Your task to perform on an android device: Look up the best selling patio furniture on Home Depot Image 0: 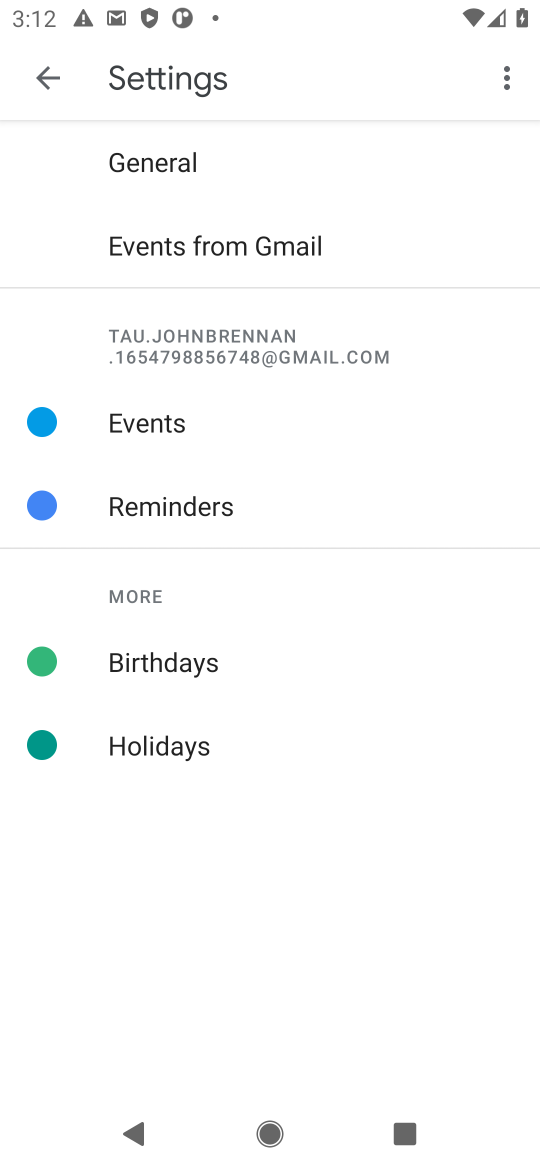
Step 0: press home button
Your task to perform on an android device: Look up the best selling patio furniture on Home Depot Image 1: 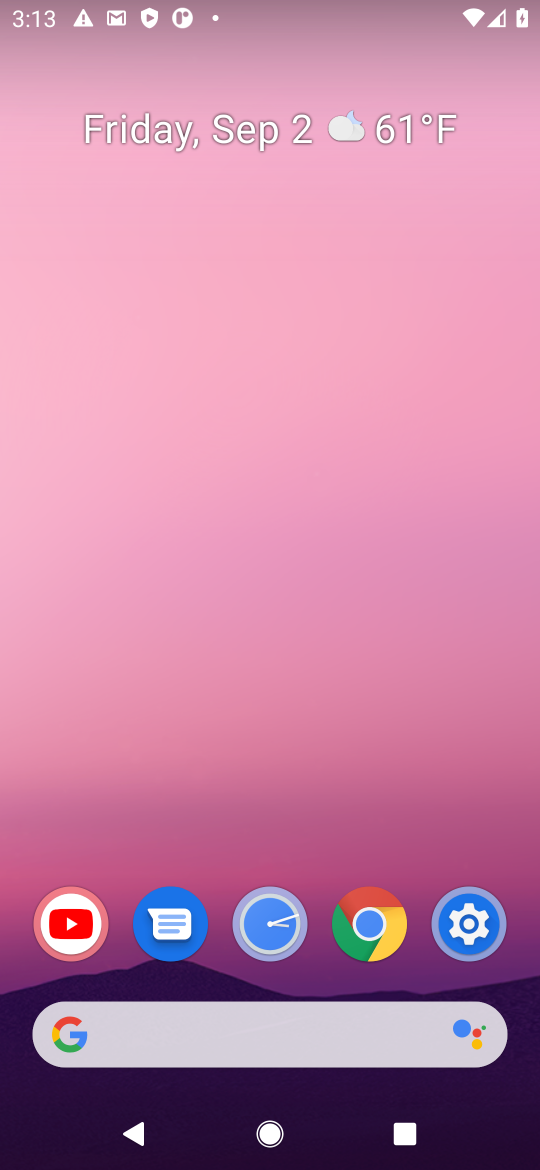
Step 1: click (420, 1024)
Your task to perform on an android device: Look up the best selling patio furniture on Home Depot Image 2: 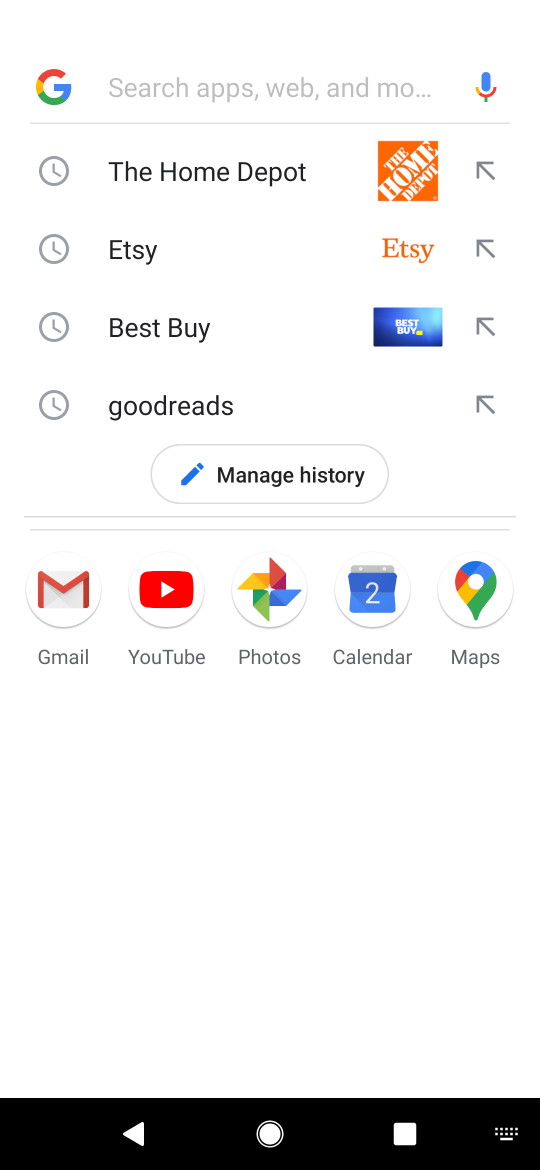
Step 2: press enter
Your task to perform on an android device: Look up the best selling patio furniture on Home Depot Image 3: 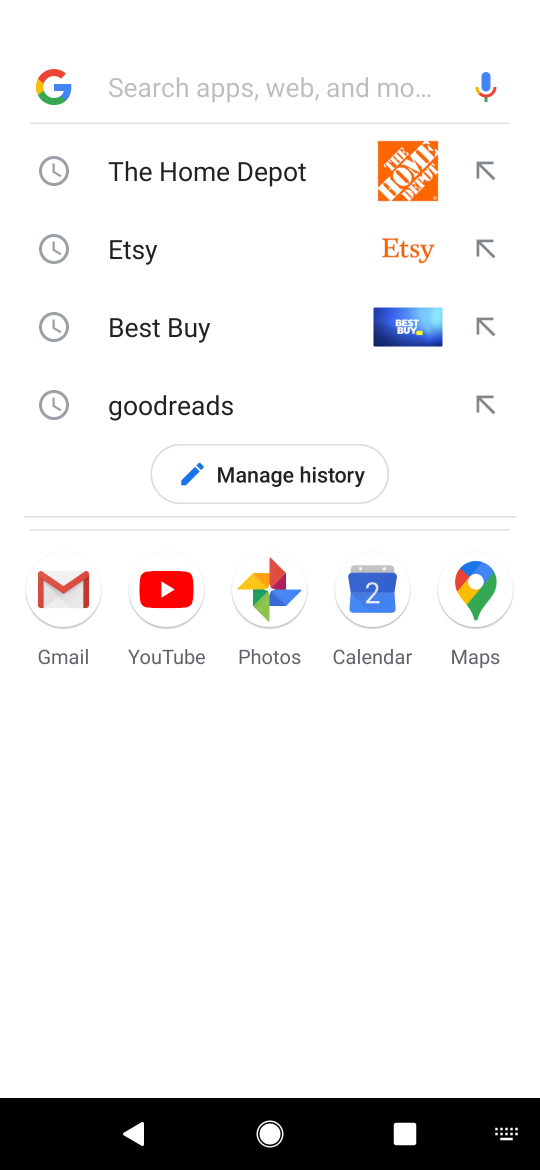
Step 3: type "home depot"
Your task to perform on an android device: Look up the best selling patio furniture on Home Depot Image 4: 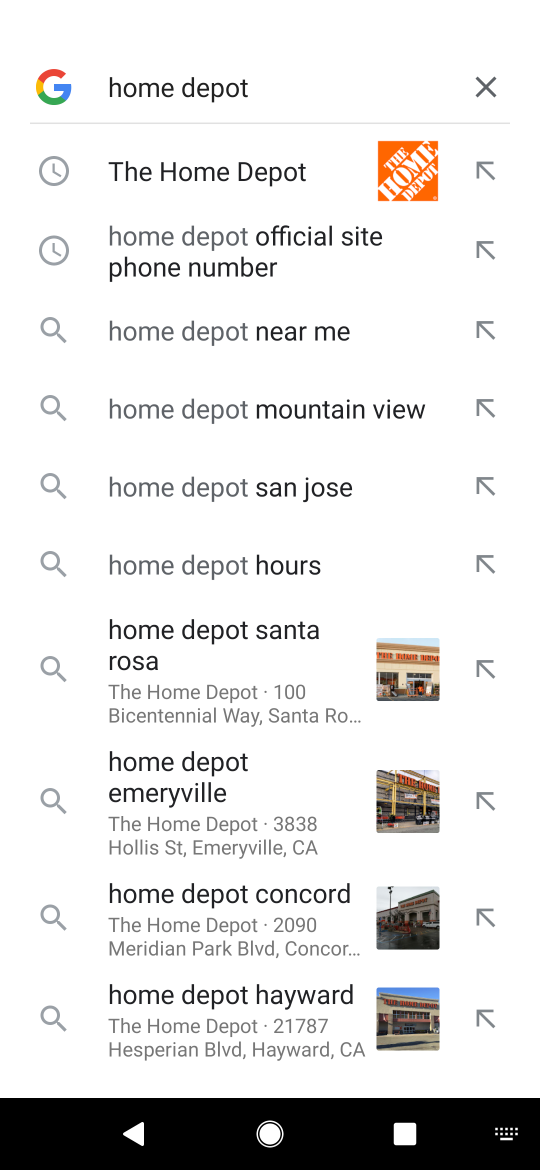
Step 4: click (289, 178)
Your task to perform on an android device: Look up the best selling patio furniture on Home Depot Image 5: 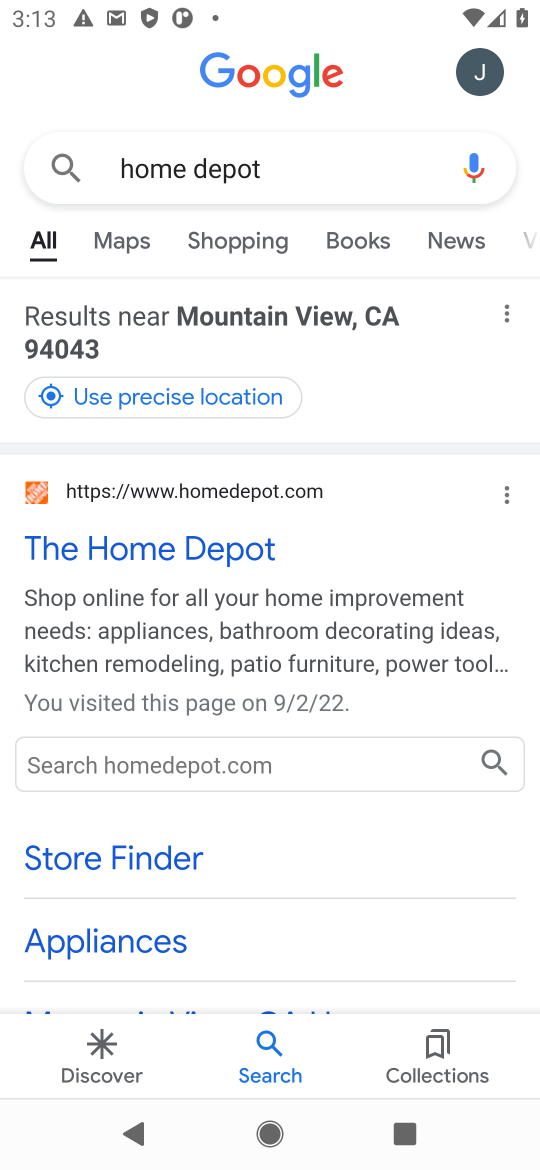
Step 5: click (233, 541)
Your task to perform on an android device: Look up the best selling patio furniture on Home Depot Image 6: 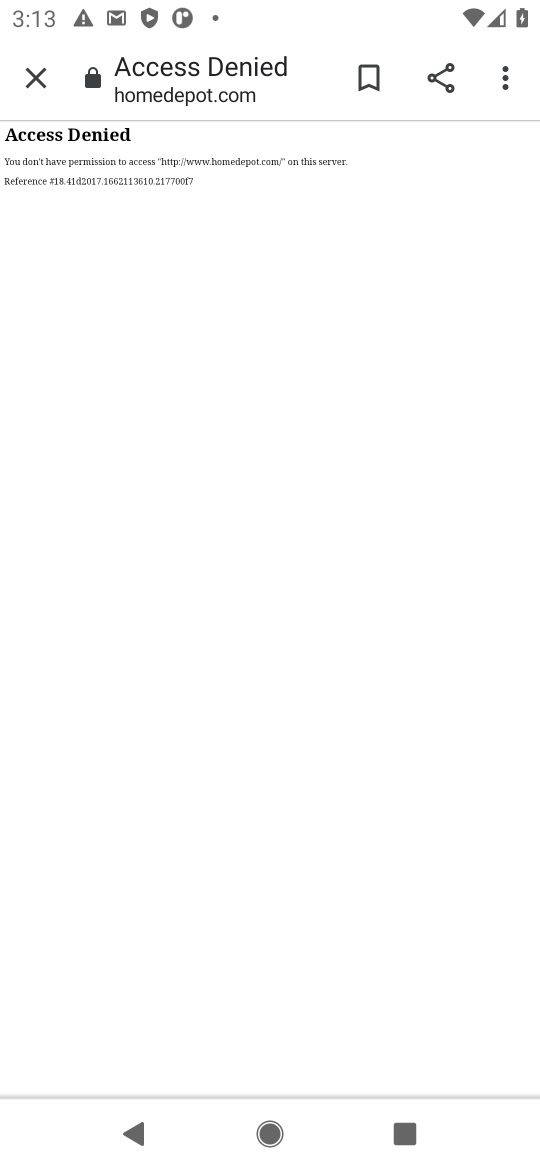
Step 6: task complete